Your task to perform on an android device: change notification settings in the gmail app Image 0: 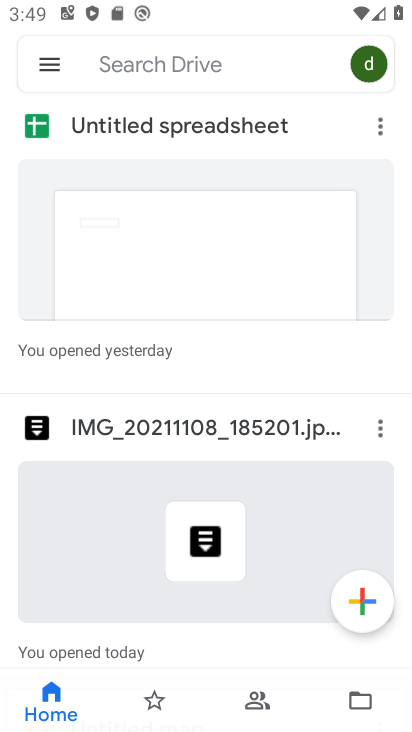
Step 0: press home button
Your task to perform on an android device: change notification settings in the gmail app Image 1: 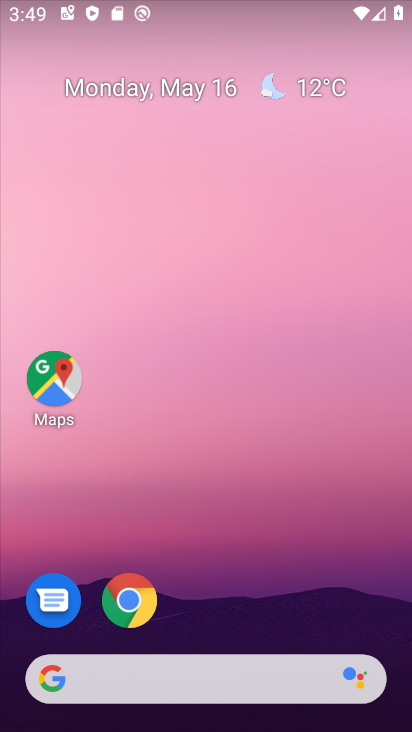
Step 1: drag from (169, 478) to (210, 192)
Your task to perform on an android device: change notification settings in the gmail app Image 2: 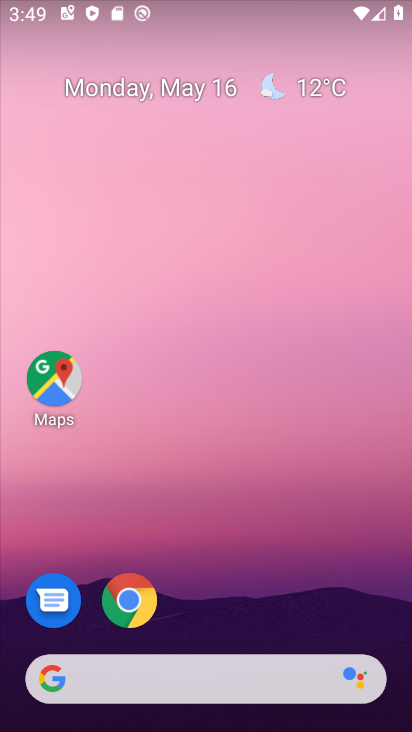
Step 2: drag from (192, 650) to (301, 166)
Your task to perform on an android device: change notification settings in the gmail app Image 3: 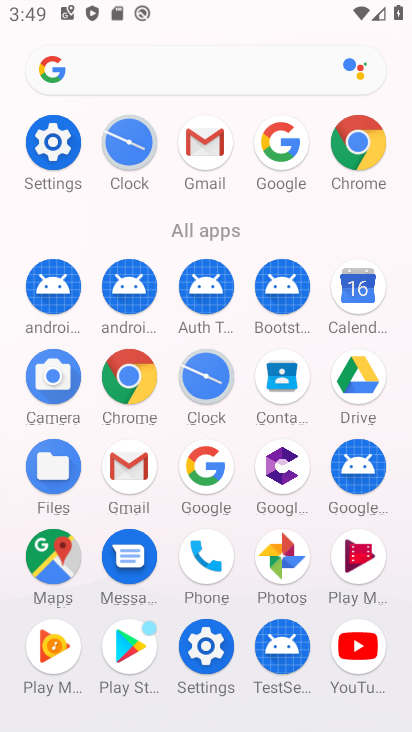
Step 3: click (211, 159)
Your task to perform on an android device: change notification settings in the gmail app Image 4: 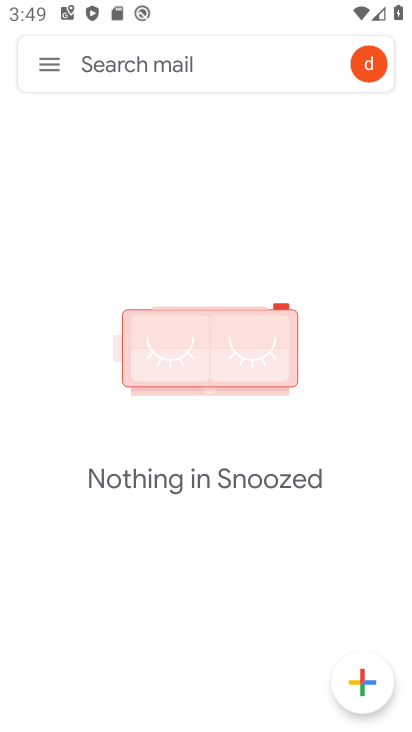
Step 4: click (59, 72)
Your task to perform on an android device: change notification settings in the gmail app Image 5: 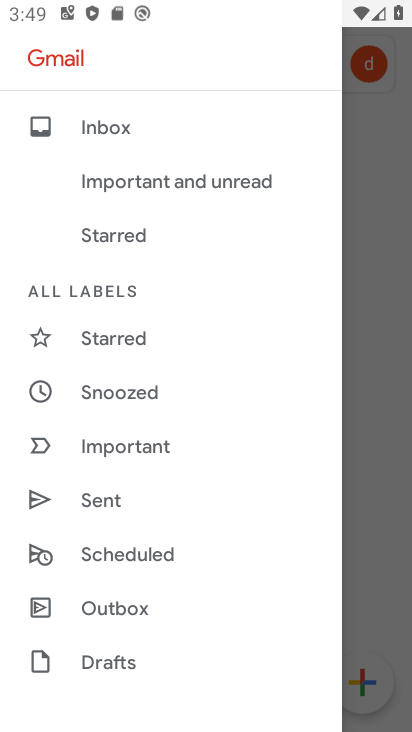
Step 5: drag from (120, 659) to (223, 21)
Your task to perform on an android device: change notification settings in the gmail app Image 6: 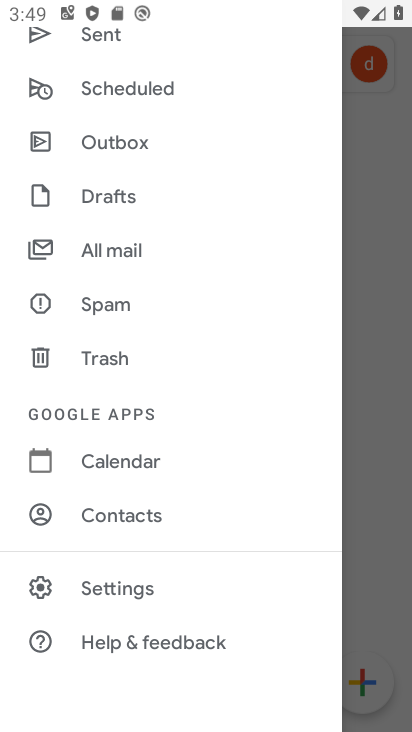
Step 6: click (96, 597)
Your task to perform on an android device: change notification settings in the gmail app Image 7: 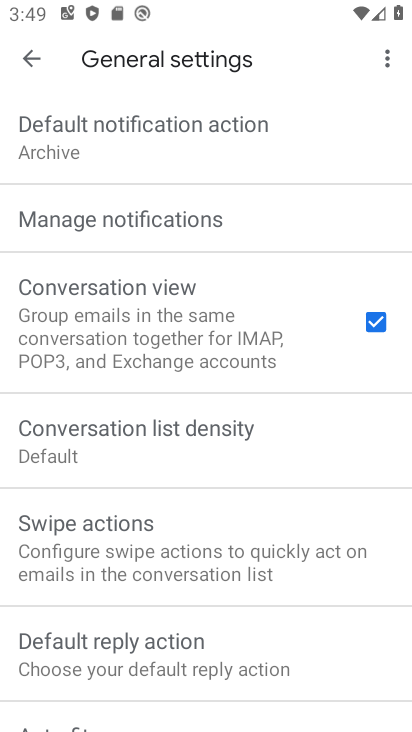
Step 7: click (80, 216)
Your task to perform on an android device: change notification settings in the gmail app Image 8: 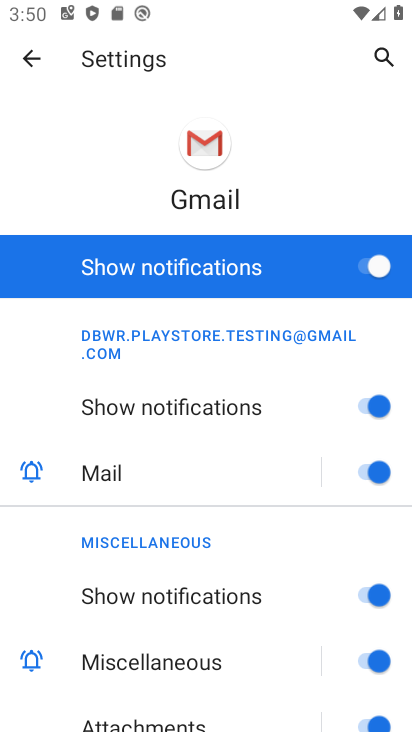
Step 8: click (365, 270)
Your task to perform on an android device: change notification settings in the gmail app Image 9: 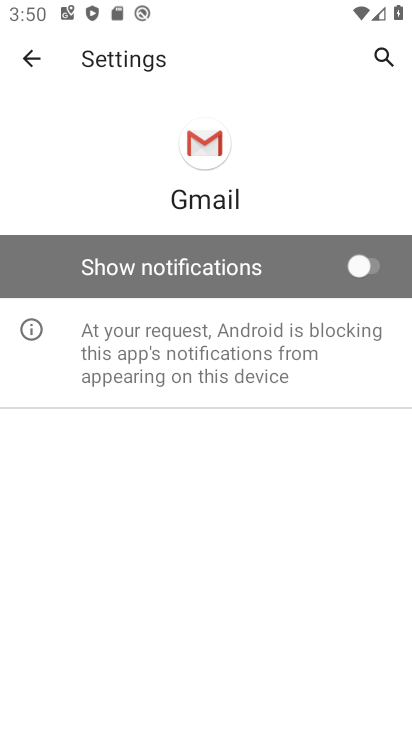
Step 9: task complete